Your task to perform on an android device: Go to accessibility settings Image 0: 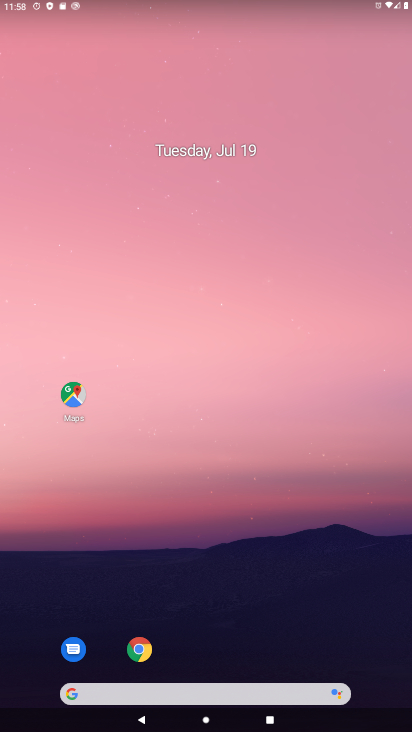
Step 0: click (395, 418)
Your task to perform on an android device: Go to accessibility settings Image 1: 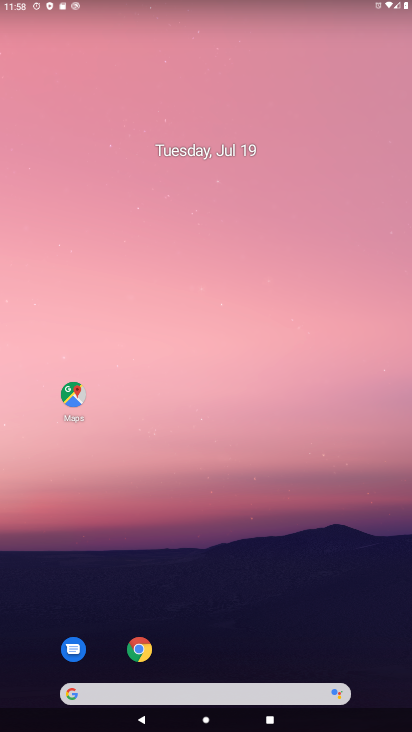
Step 1: drag from (225, 607) to (227, 151)
Your task to perform on an android device: Go to accessibility settings Image 2: 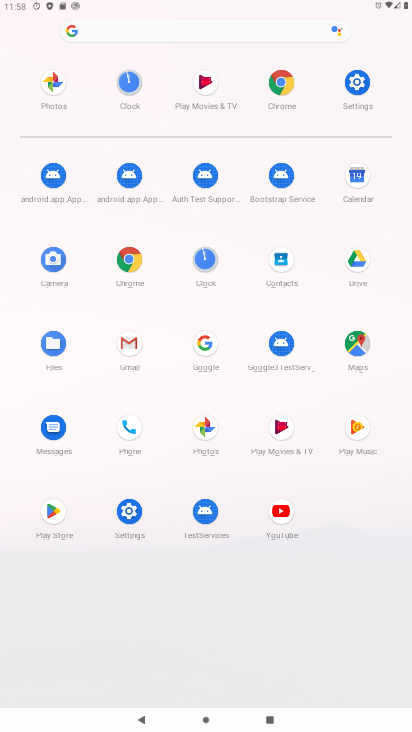
Step 2: click (353, 73)
Your task to perform on an android device: Go to accessibility settings Image 3: 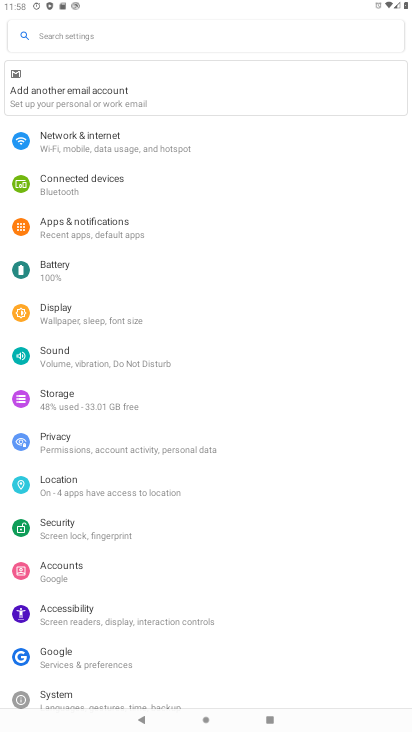
Step 3: click (84, 617)
Your task to perform on an android device: Go to accessibility settings Image 4: 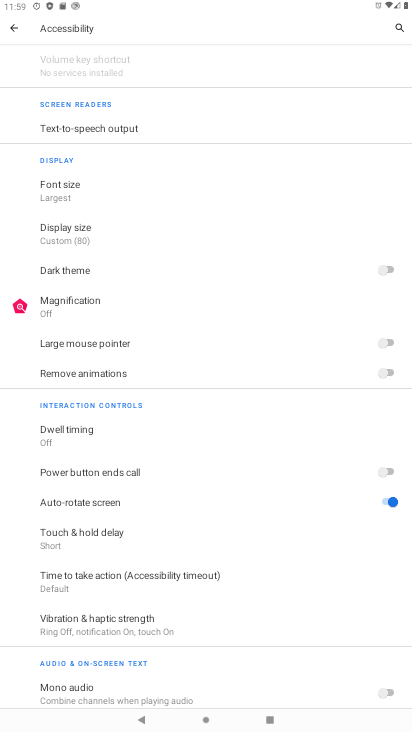
Step 4: task complete